Your task to perform on an android device: turn off data saver in the chrome app Image 0: 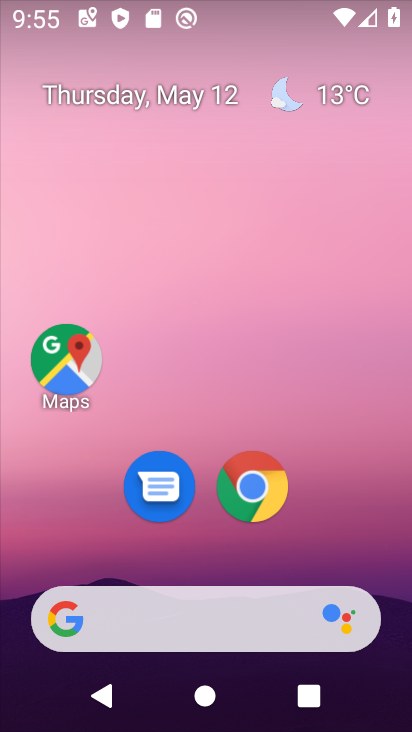
Step 0: click (268, 492)
Your task to perform on an android device: turn off data saver in the chrome app Image 1: 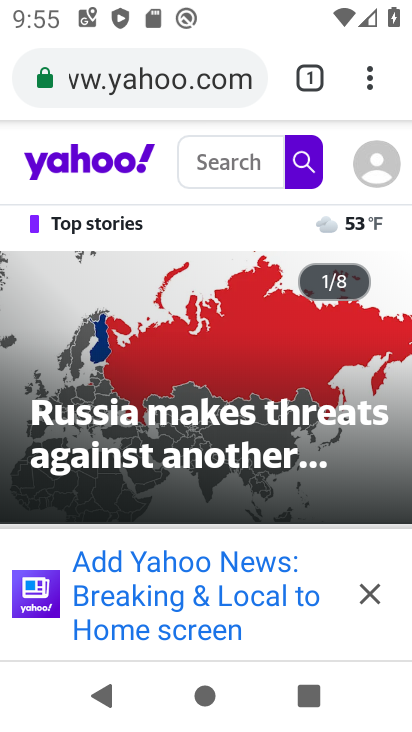
Step 1: click (367, 96)
Your task to perform on an android device: turn off data saver in the chrome app Image 2: 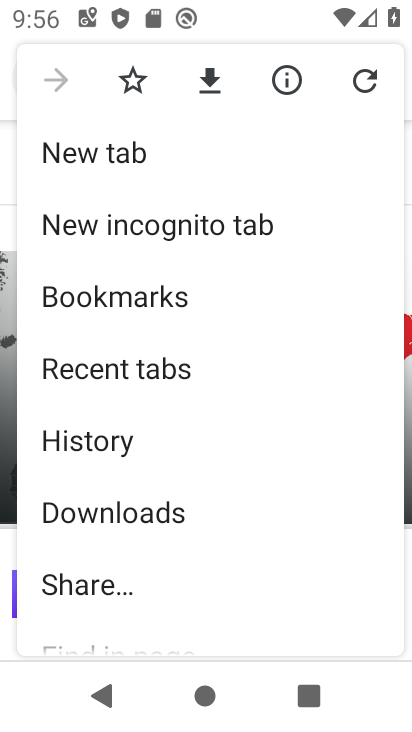
Step 2: drag from (299, 525) to (225, 297)
Your task to perform on an android device: turn off data saver in the chrome app Image 3: 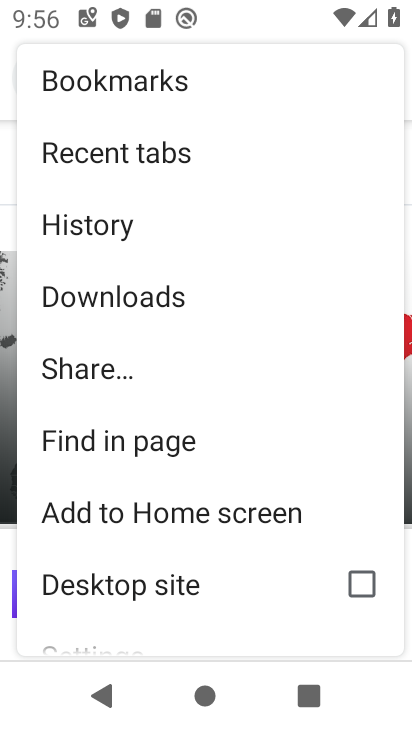
Step 3: drag from (265, 505) to (226, 385)
Your task to perform on an android device: turn off data saver in the chrome app Image 4: 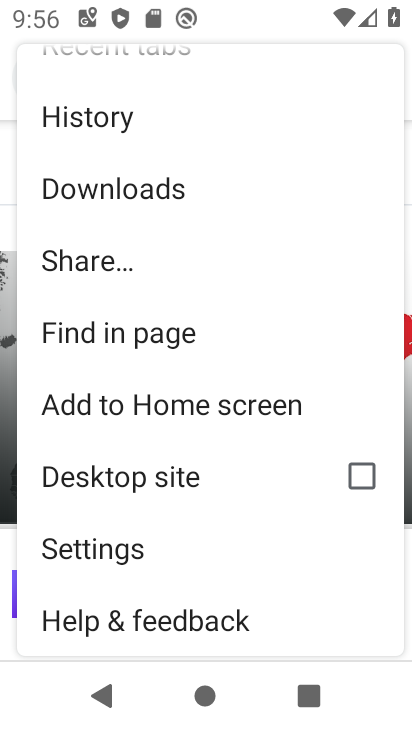
Step 4: click (108, 563)
Your task to perform on an android device: turn off data saver in the chrome app Image 5: 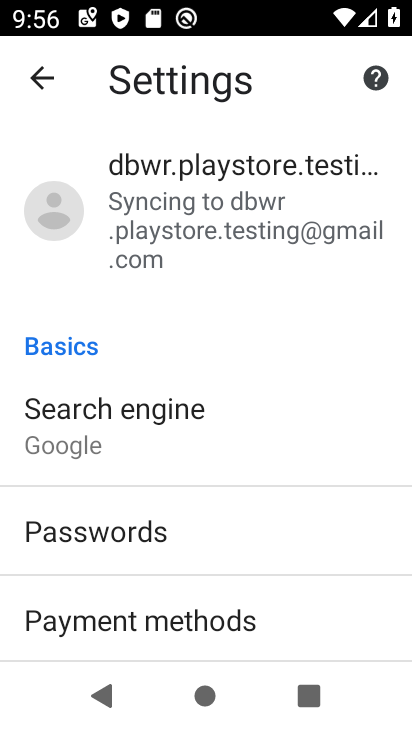
Step 5: drag from (282, 552) to (228, 240)
Your task to perform on an android device: turn off data saver in the chrome app Image 6: 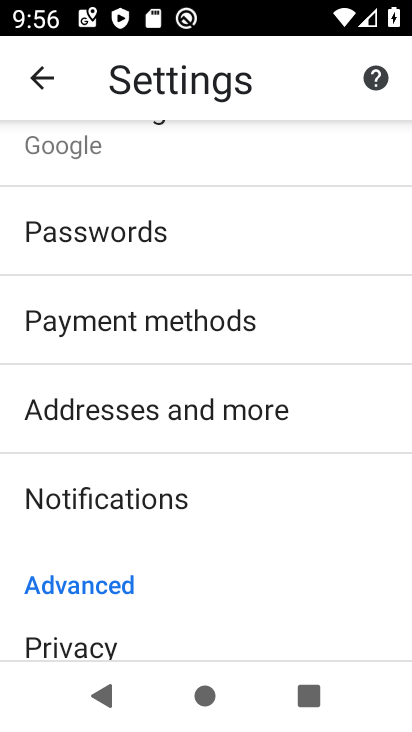
Step 6: drag from (265, 556) to (167, 252)
Your task to perform on an android device: turn off data saver in the chrome app Image 7: 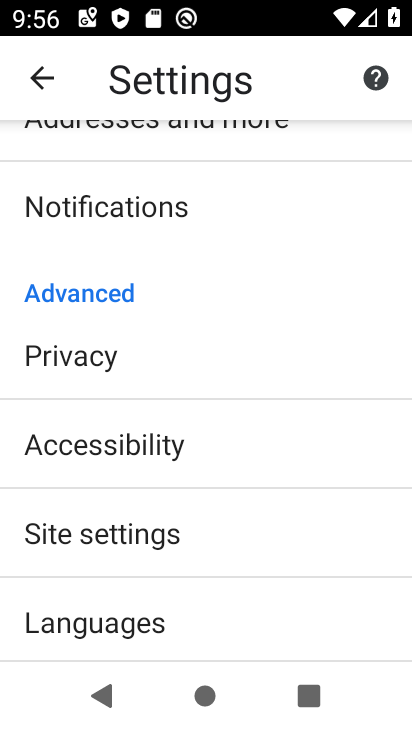
Step 7: drag from (204, 552) to (132, 248)
Your task to perform on an android device: turn off data saver in the chrome app Image 8: 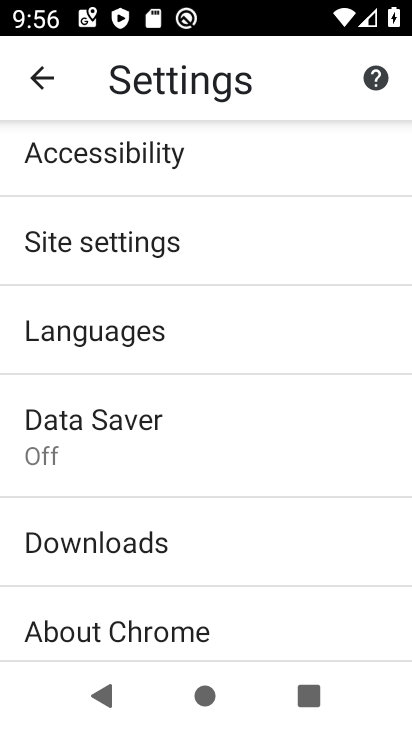
Step 8: click (184, 407)
Your task to perform on an android device: turn off data saver in the chrome app Image 9: 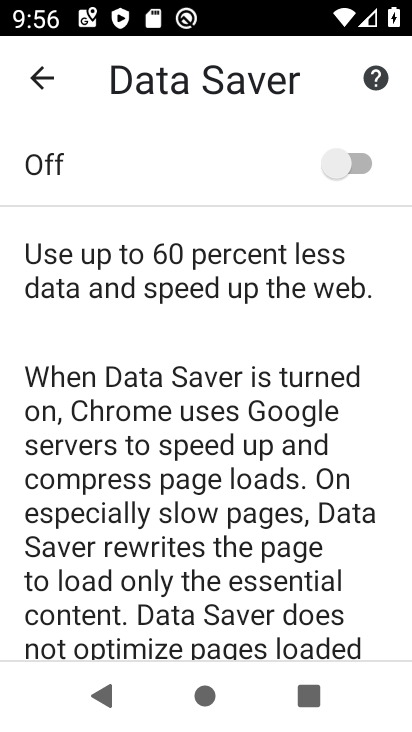
Step 9: task complete